Your task to perform on an android device: open chrome privacy settings Image 0: 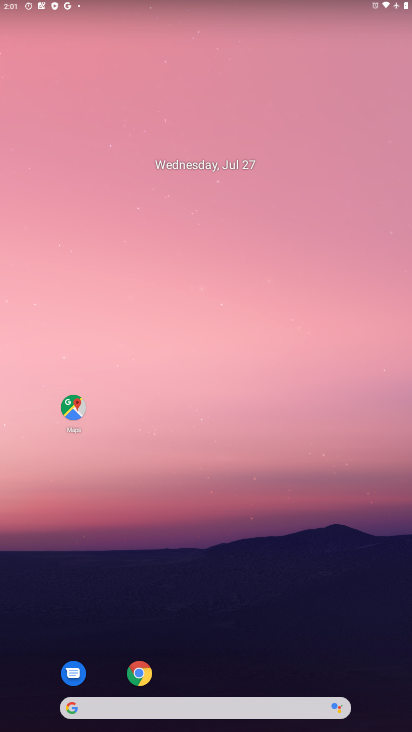
Step 0: click (145, 670)
Your task to perform on an android device: open chrome privacy settings Image 1: 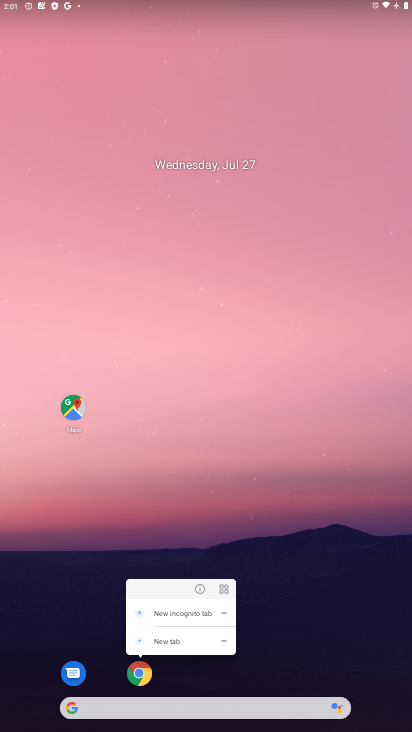
Step 1: click (144, 672)
Your task to perform on an android device: open chrome privacy settings Image 2: 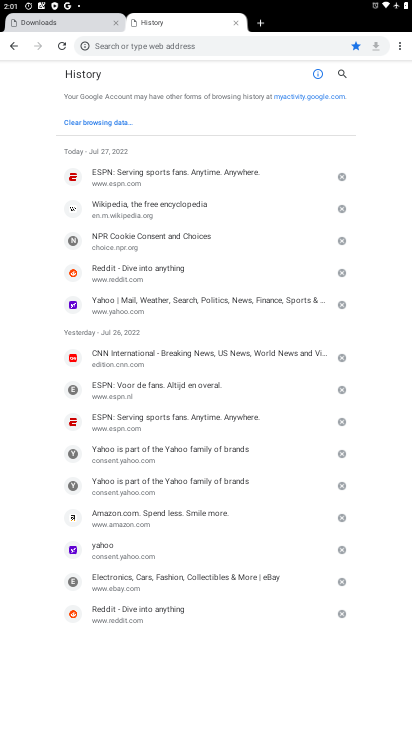
Step 2: drag from (404, 48) to (299, 215)
Your task to perform on an android device: open chrome privacy settings Image 3: 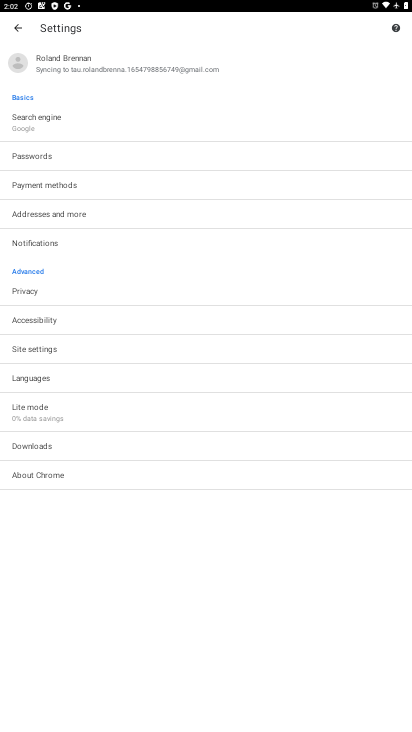
Step 3: click (40, 295)
Your task to perform on an android device: open chrome privacy settings Image 4: 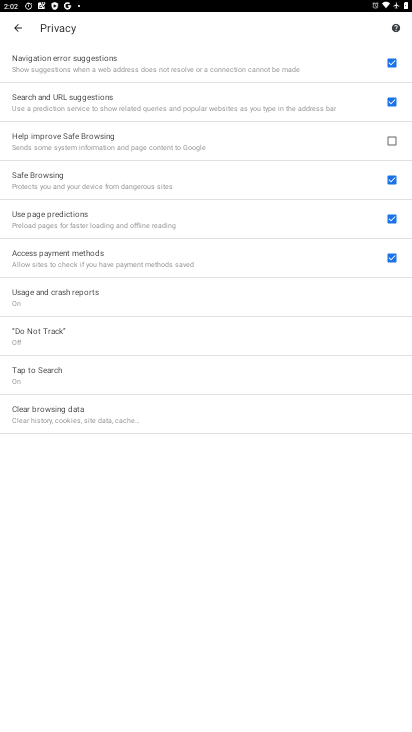
Step 4: task complete